Your task to perform on an android device: turn on location history Image 0: 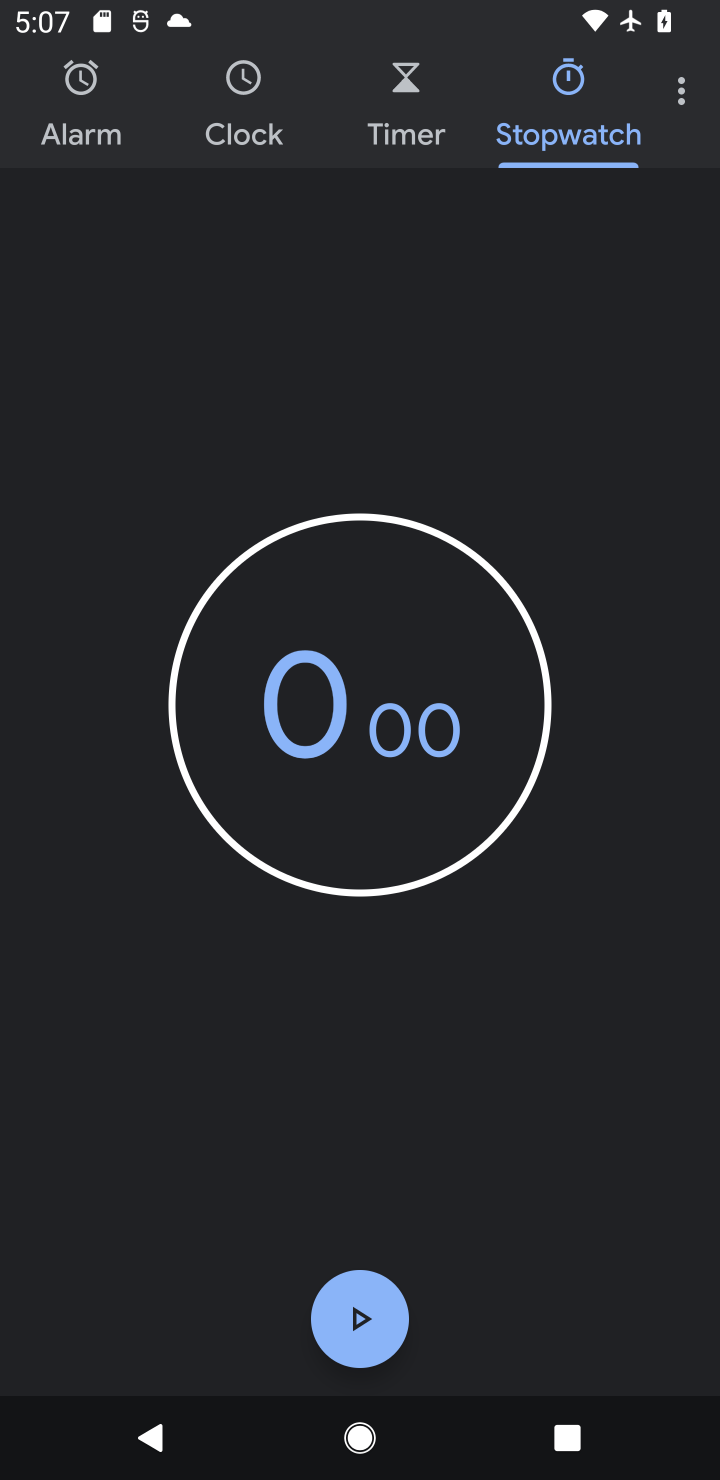
Step 0: press home button
Your task to perform on an android device: turn on location history Image 1: 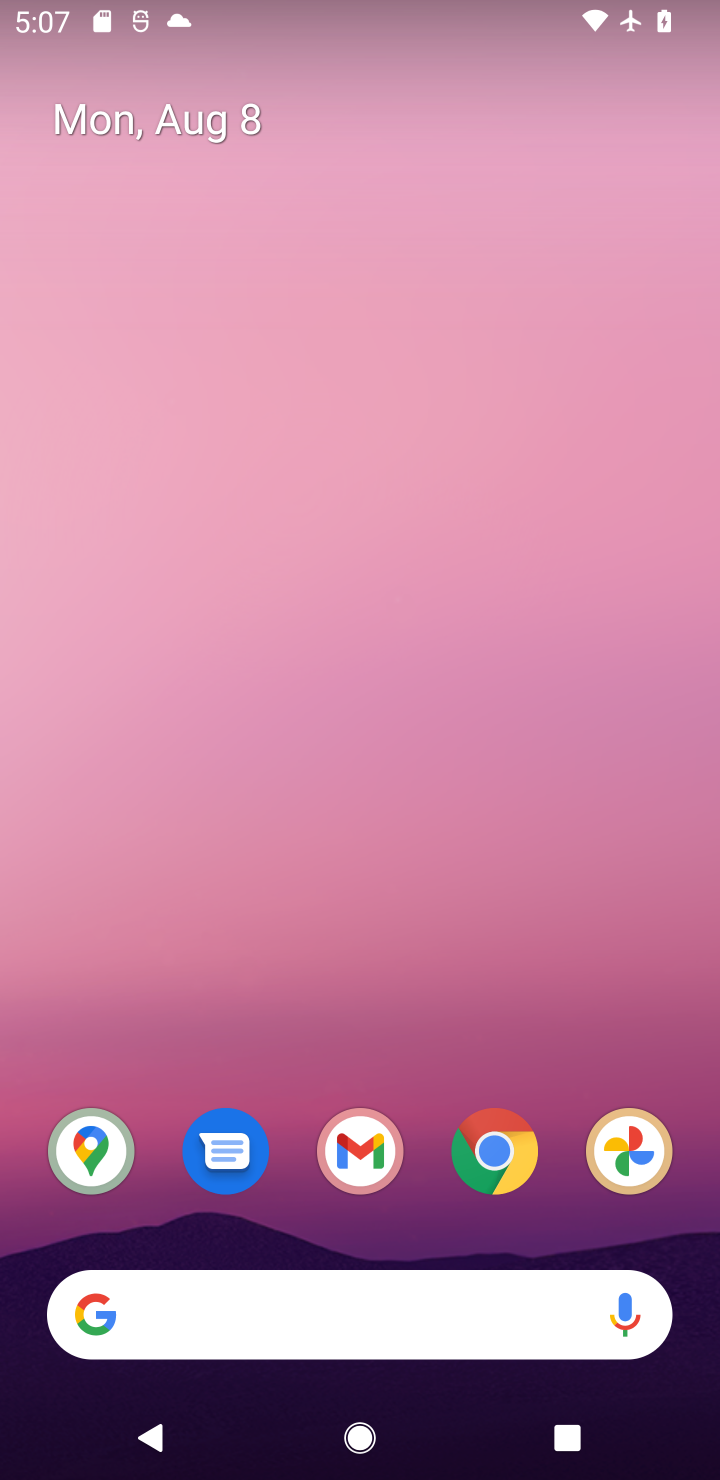
Step 1: drag from (399, 939) to (308, 261)
Your task to perform on an android device: turn on location history Image 2: 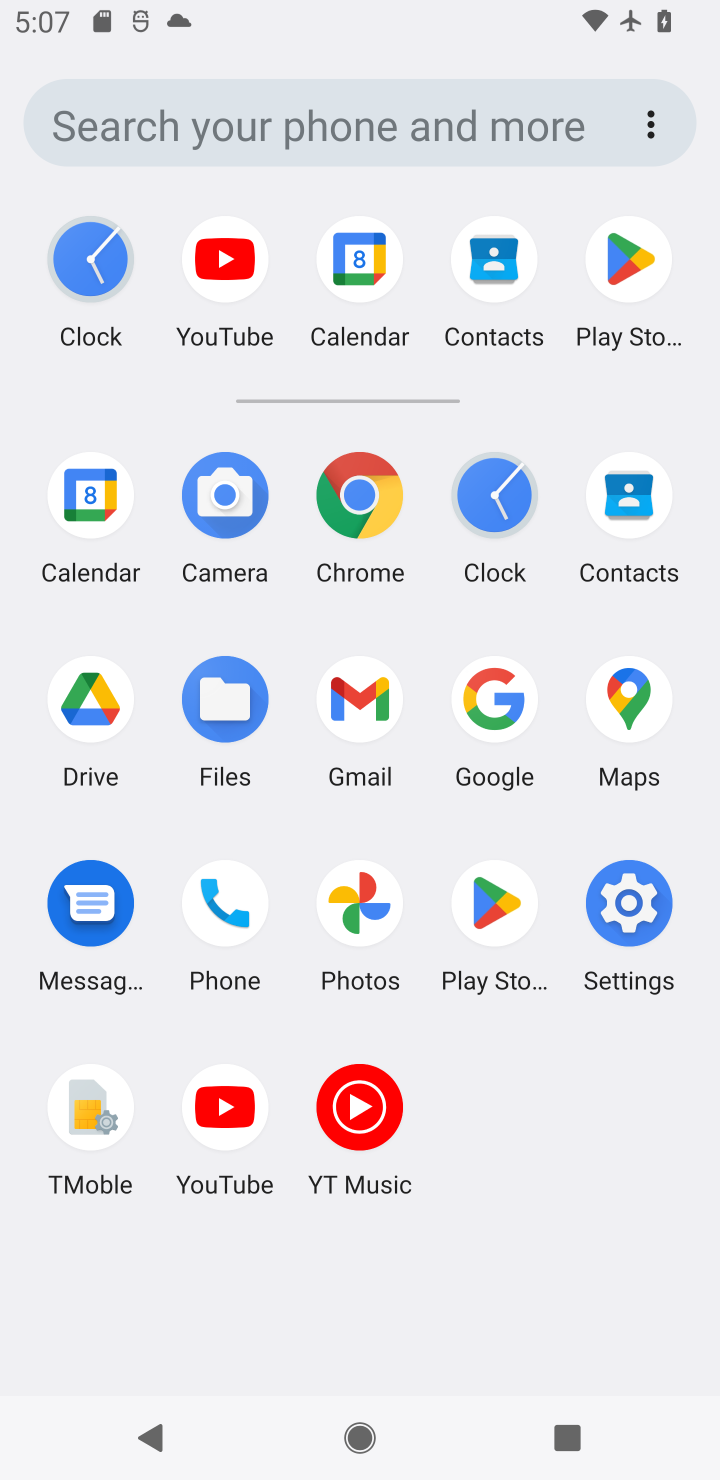
Step 2: click (629, 886)
Your task to perform on an android device: turn on location history Image 3: 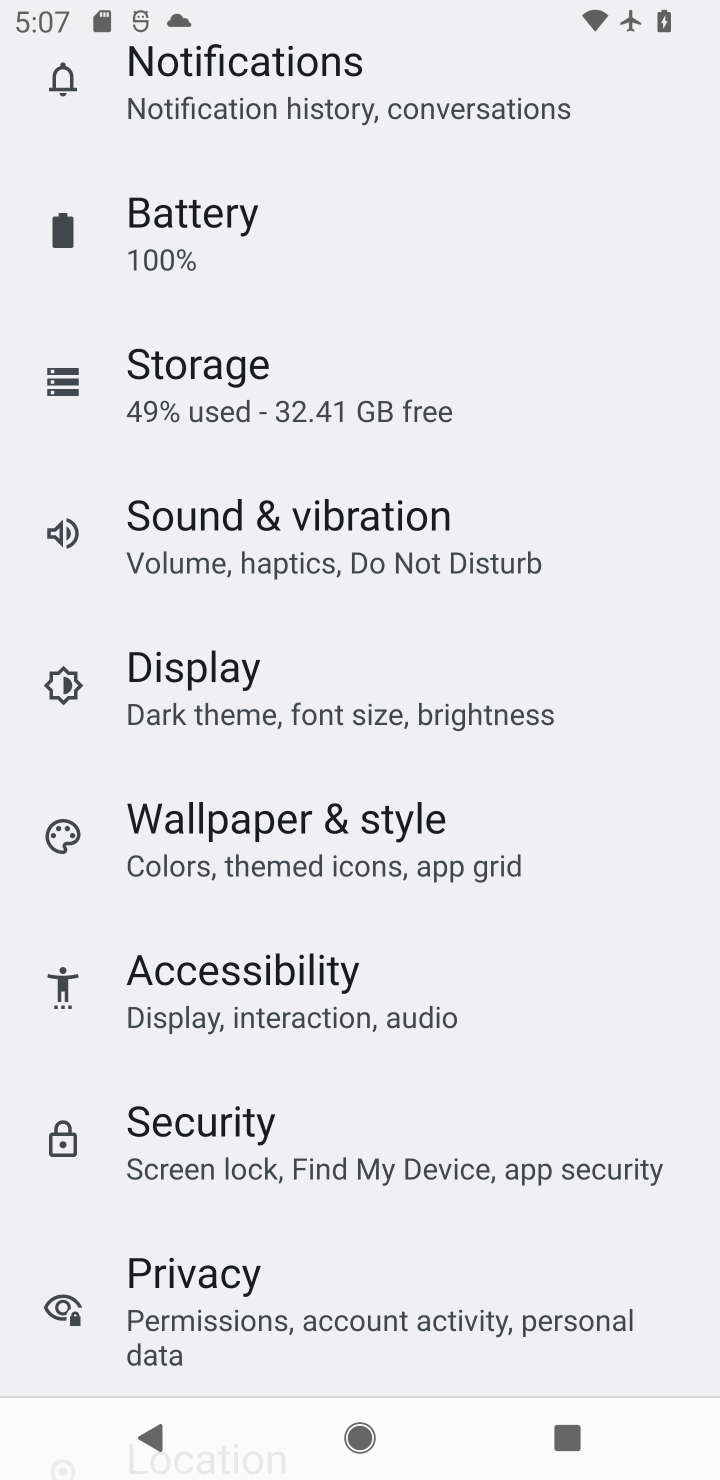
Step 3: drag from (309, 446) to (352, 1122)
Your task to perform on an android device: turn on location history Image 4: 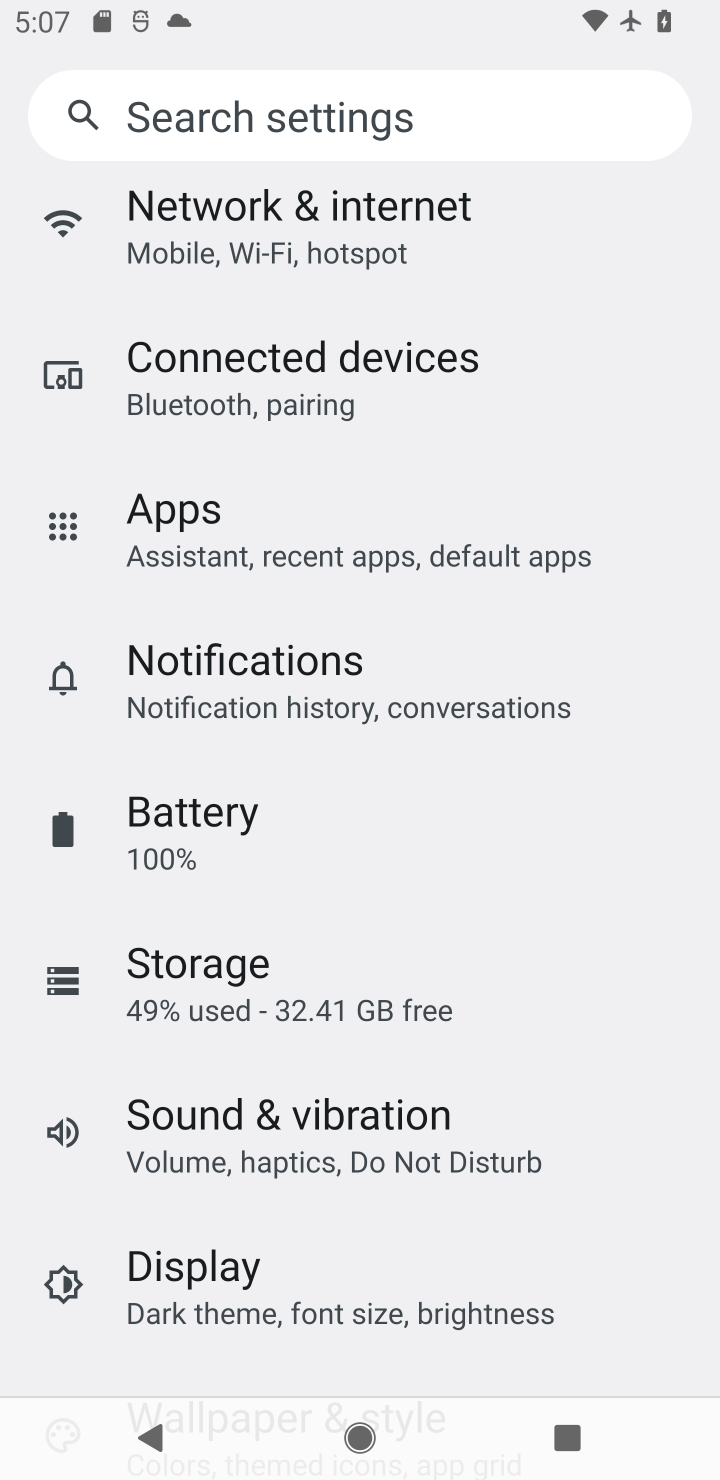
Step 4: drag from (374, 931) to (388, 574)
Your task to perform on an android device: turn on location history Image 5: 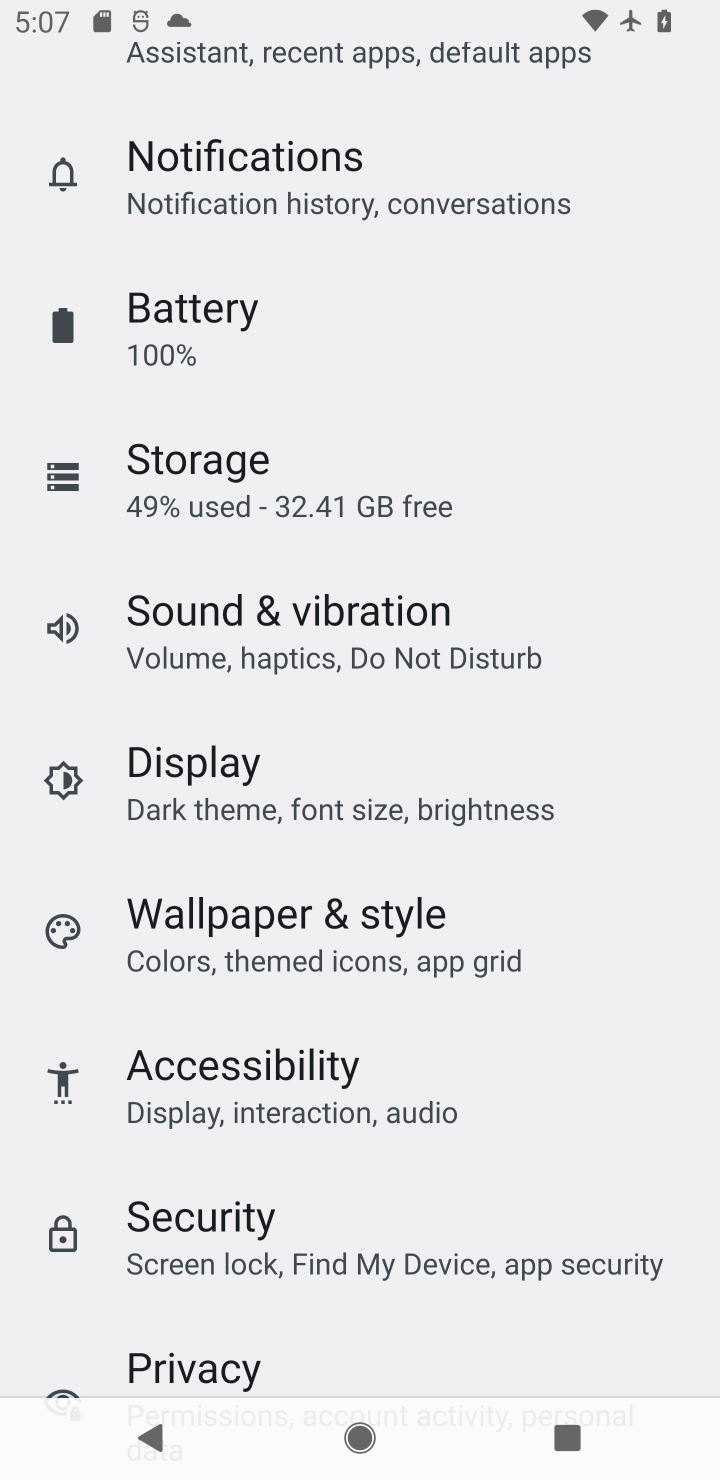
Step 5: drag from (356, 1279) to (395, 528)
Your task to perform on an android device: turn on location history Image 6: 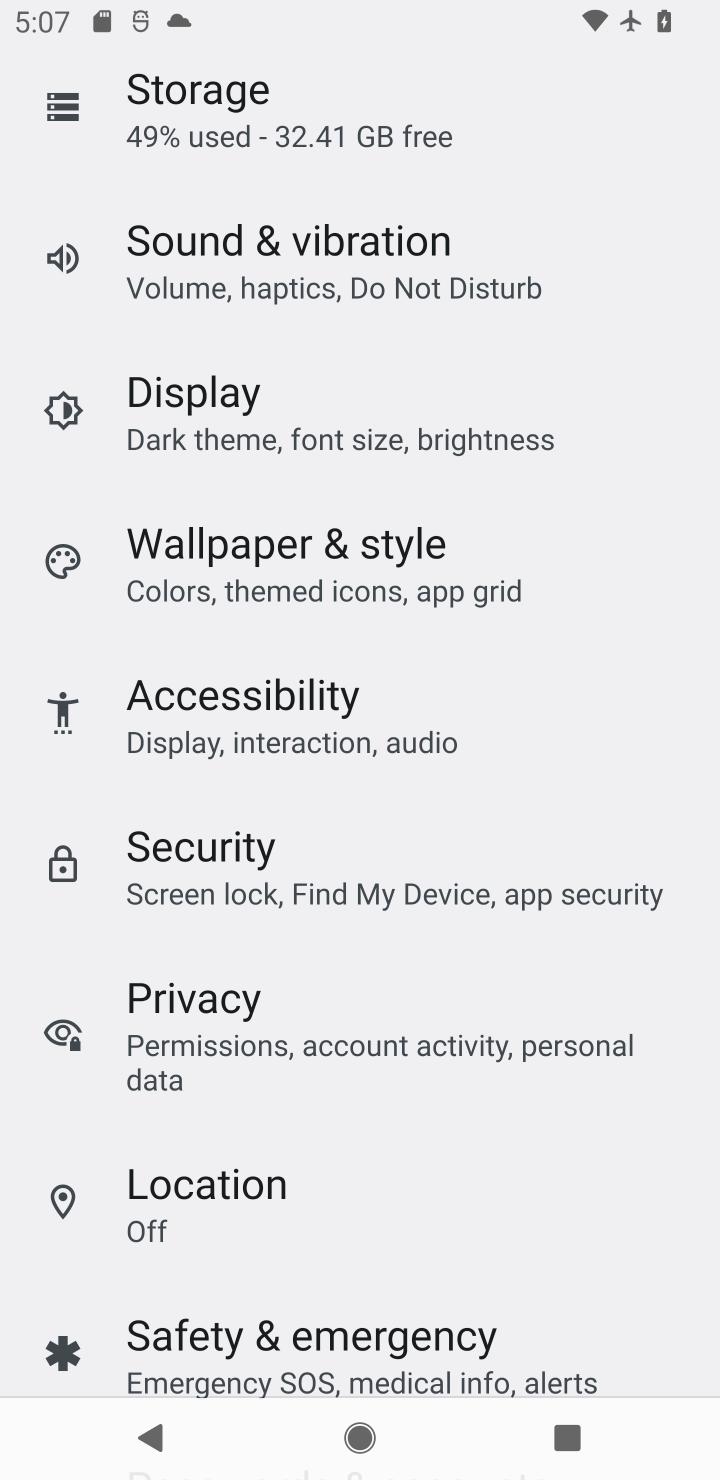
Step 6: click (360, 1186)
Your task to perform on an android device: turn on location history Image 7: 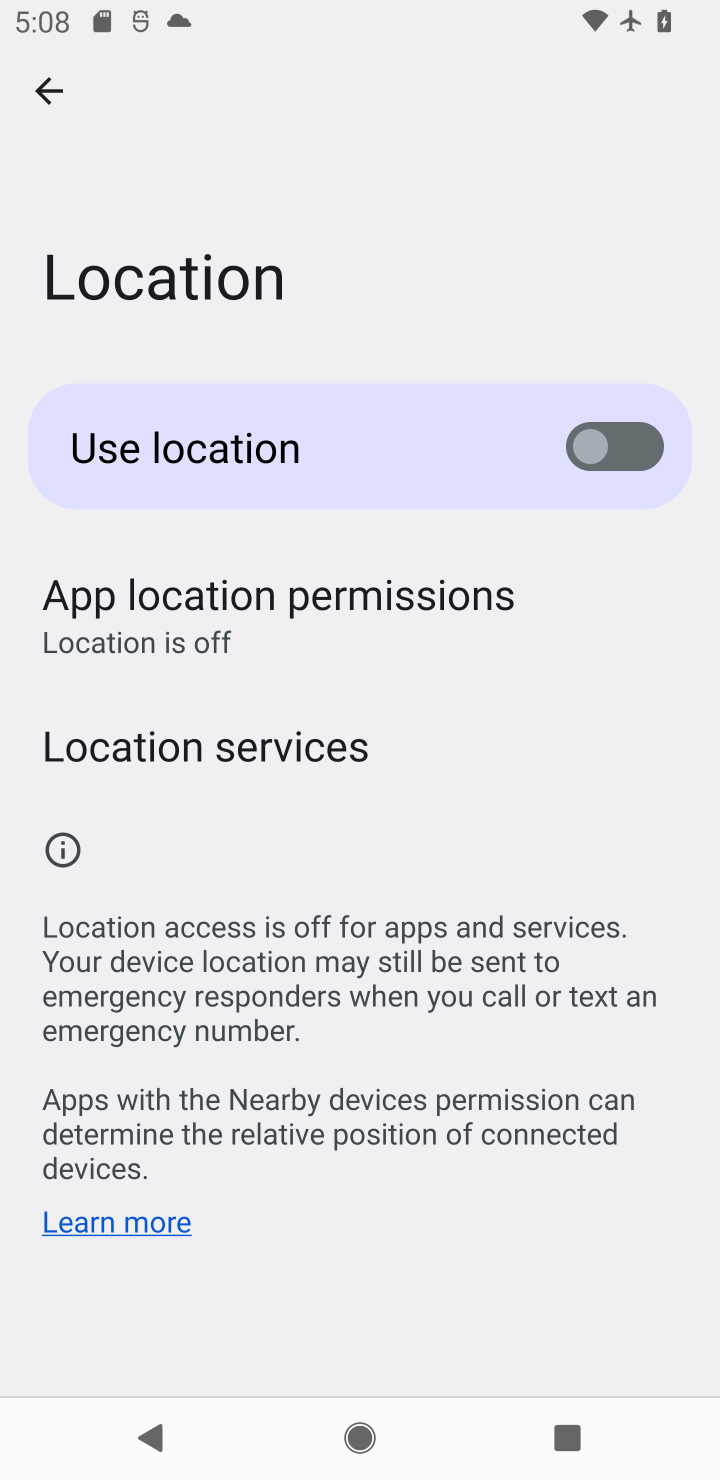
Step 7: drag from (446, 1332) to (408, 798)
Your task to perform on an android device: turn on location history Image 8: 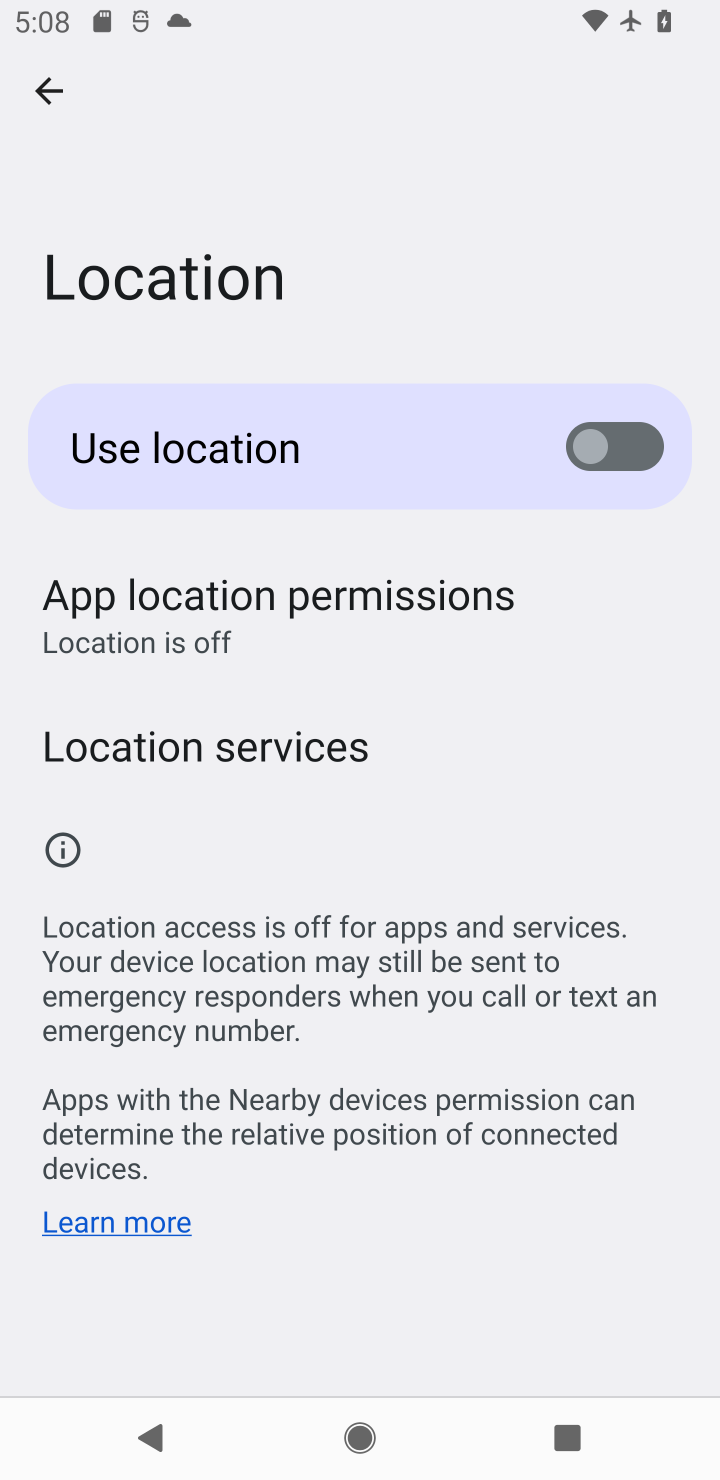
Step 8: click (363, 756)
Your task to perform on an android device: turn on location history Image 9: 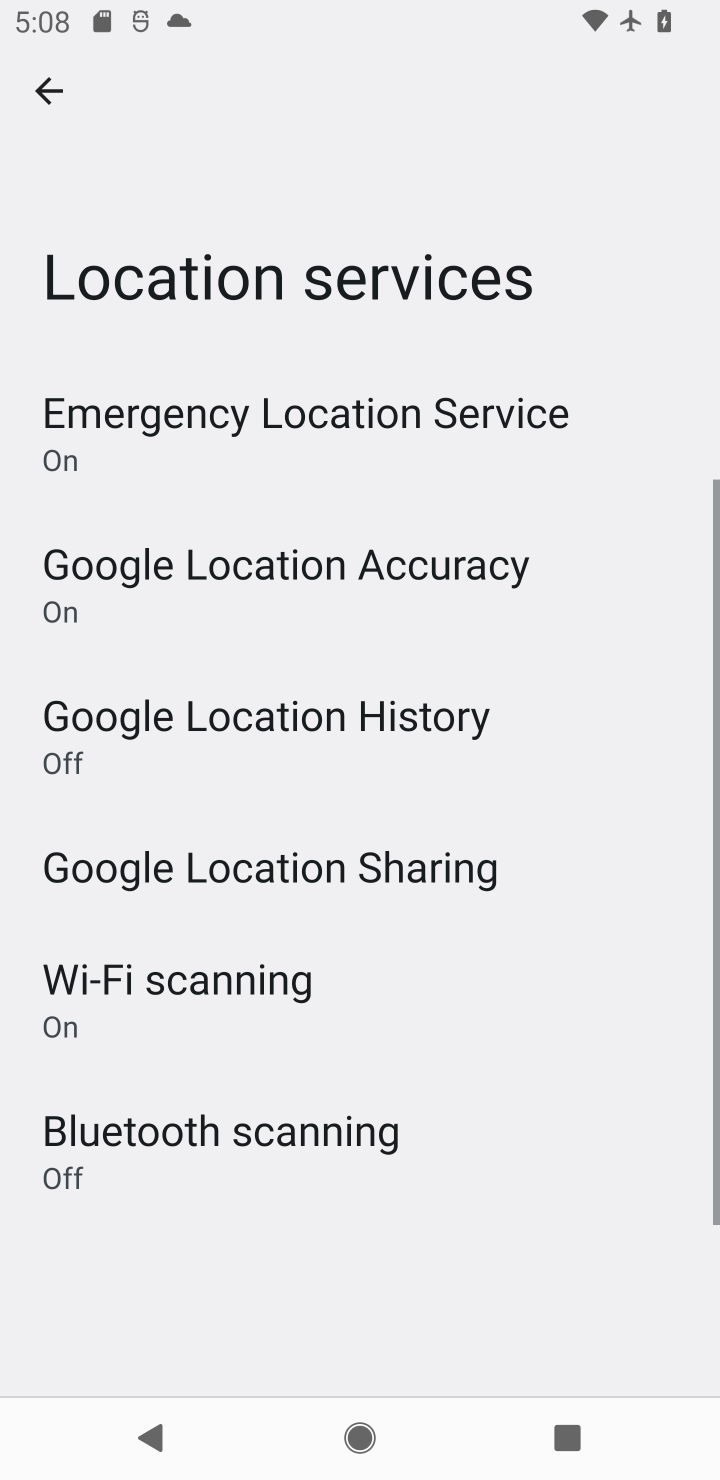
Step 9: click (363, 756)
Your task to perform on an android device: turn on location history Image 10: 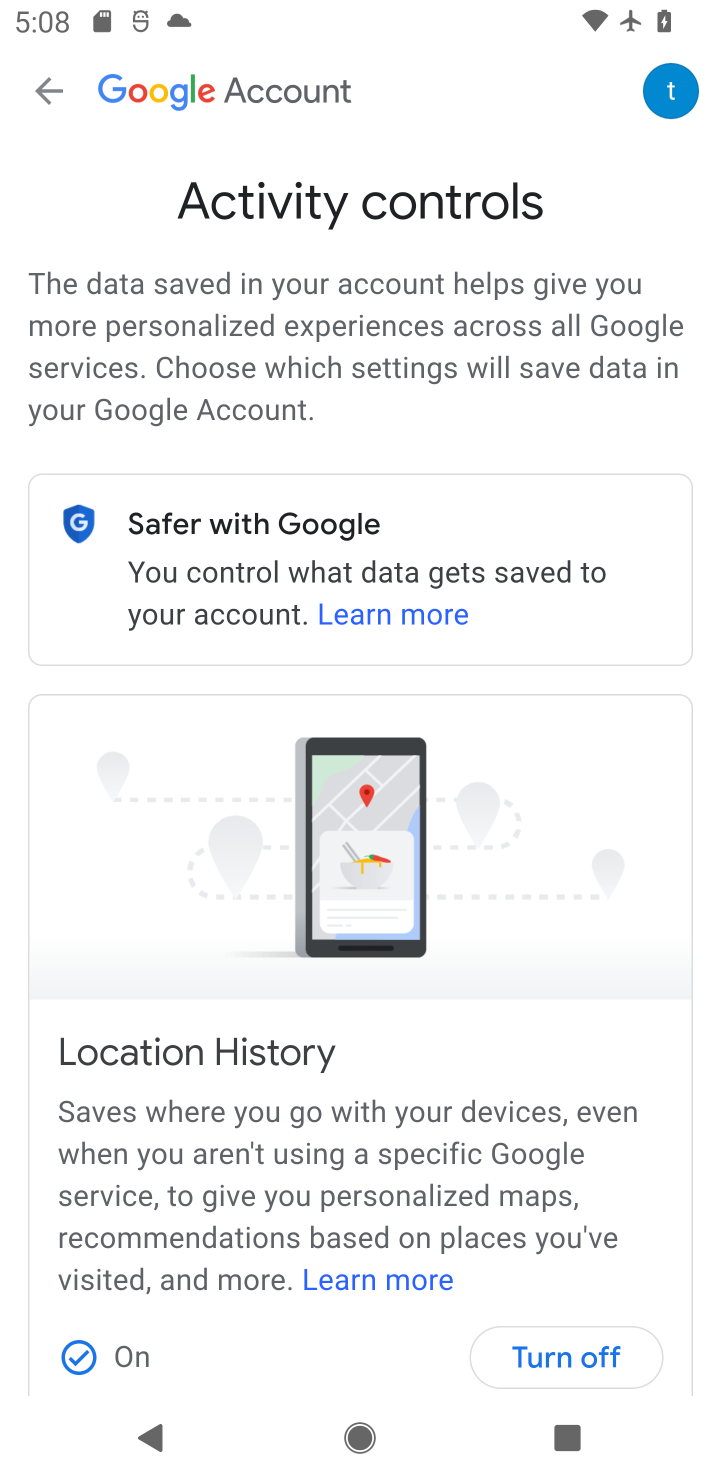
Step 10: task complete